Your task to perform on an android device: Play the last video I watched on Youtube Image 0: 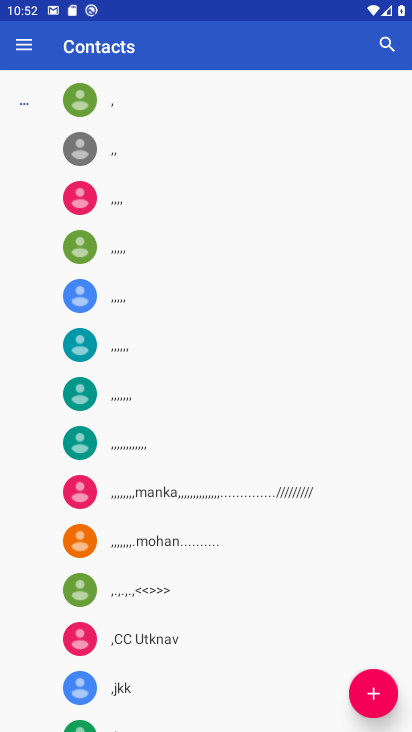
Step 0: press home button
Your task to perform on an android device: Play the last video I watched on Youtube Image 1: 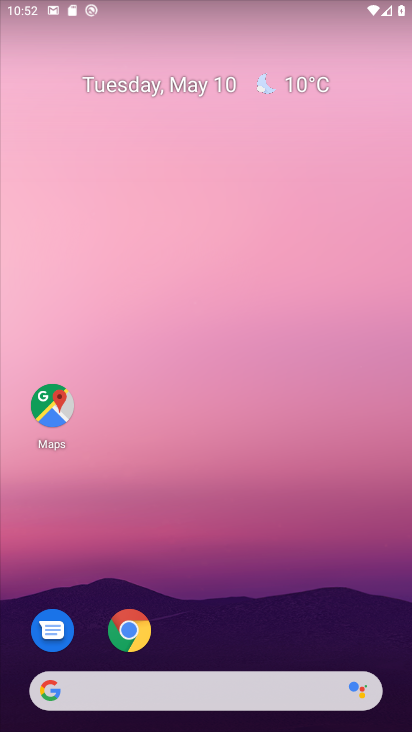
Step 1: drag from (238, 637) to (260, 95)
Your task to perform on an android device: Play the last video I watched on Youtube Image 2: 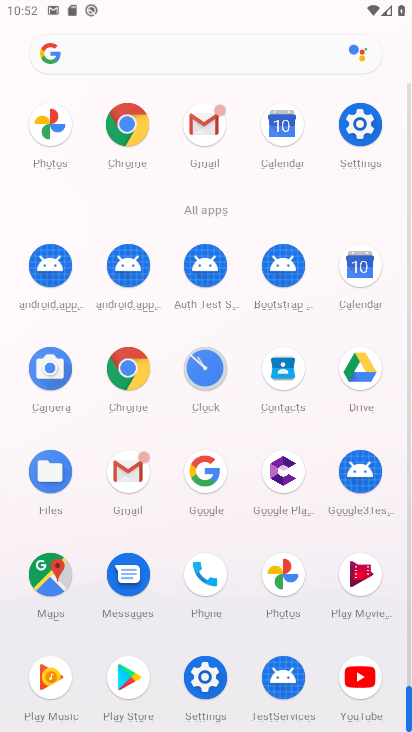
Step 2: click (355, 677)
Your task to perform on an android device: Play the last video I watched on Youtube Image 3: 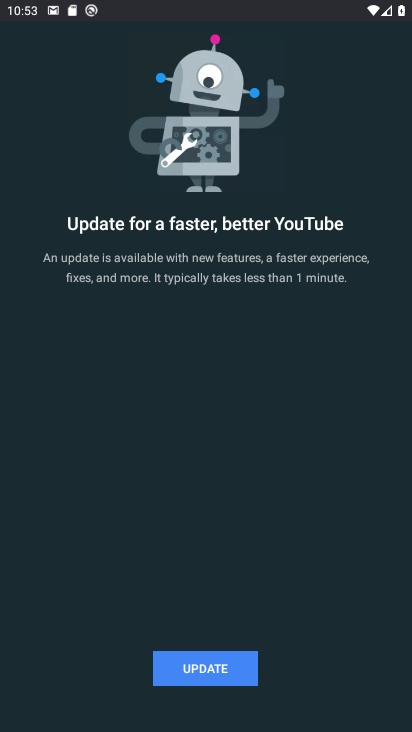
Step 3: click (229, 667)
Your task to perform on an android device: Play the last video I watched on Youtube Image 4: 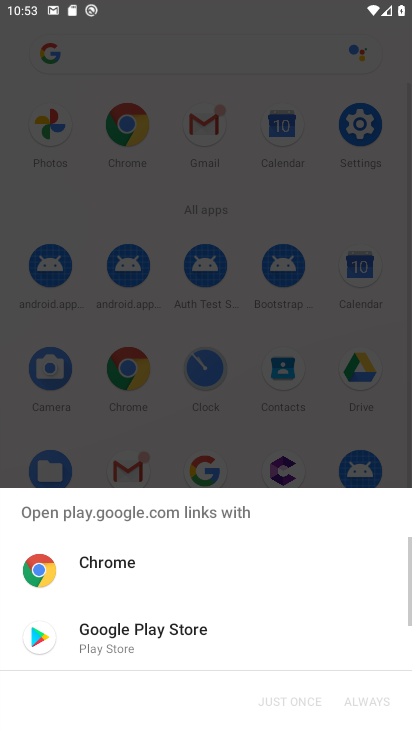
Step 4: click (175, 625)
Your task to perform on an android device: Play the last video I watched on Youtube Image 5: 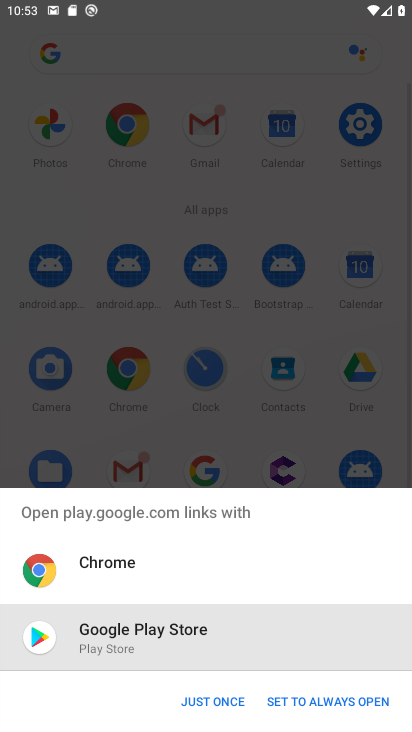
Step 5: click (228, 696)
Your task to perform on an android device: Play the last video I watched on Youtube Image 6: 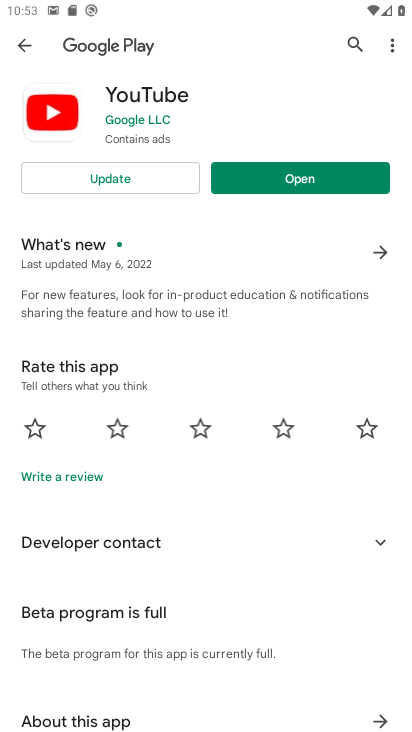
Step 6: click (153, 174)
Your task to perform on an android device: Play the last video I watched on Youtube Image 7: 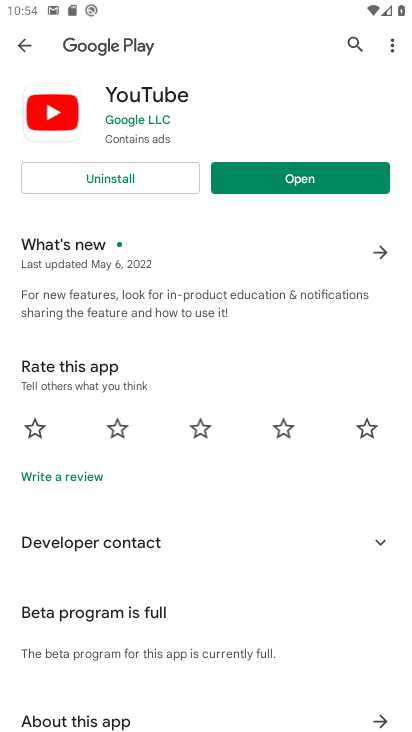
Step 7: click (345, 181)
Your task to perform on an android device: Play the last video I watched on Youtube Image 8: 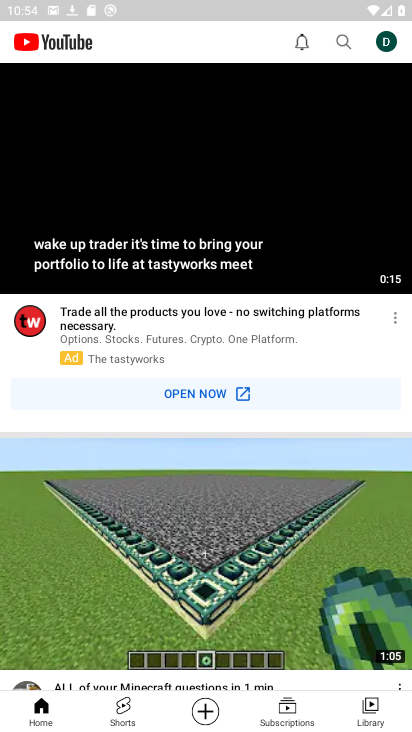
Step 8: click (377, 716)
Your task to perform on an android device: Play the last video I watched on Youtube Image 9: 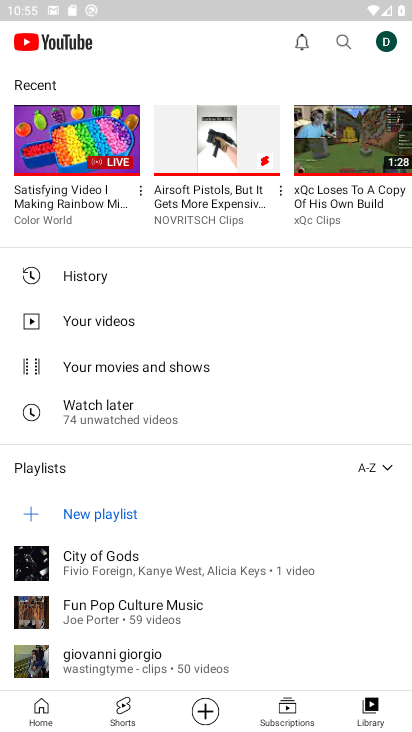
Step 9: click (68, 147)
Your task to perform on an android device: Play the last video I watched on Youtube Image 10: 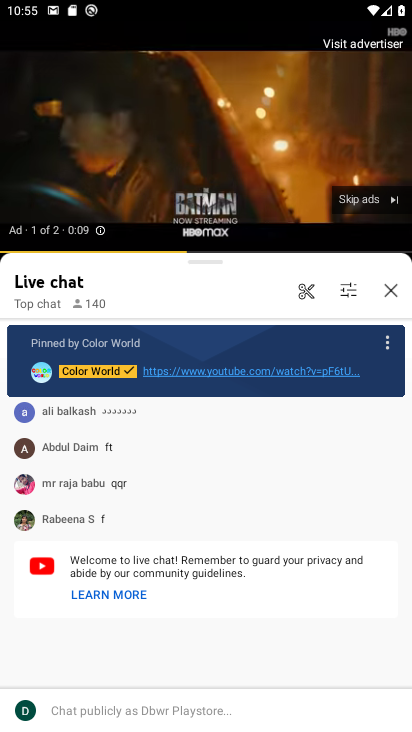
Step 10: click (382, 199)
Your task to perform on an android device: Play the last video I watched on Youtube Image 11: 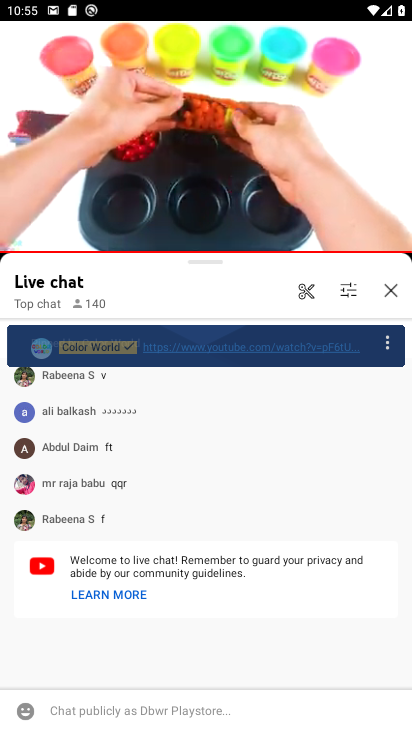
Step 11: task complete